Your task to perform on an android device: remove spam from my inbox in the gmail app Image 0: 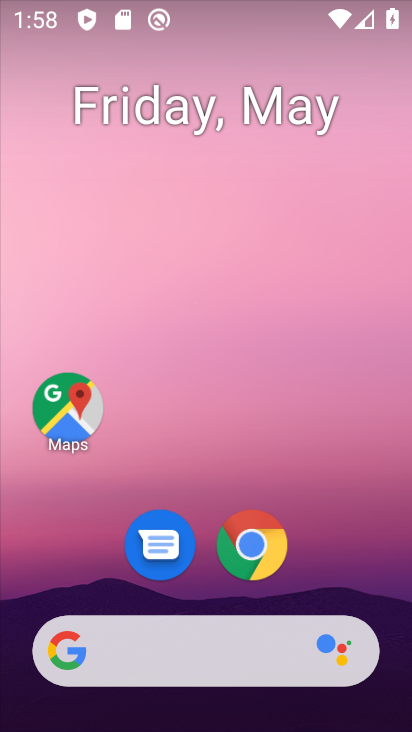
Step 0: drag from (78, 587) to (240, 161)
Your task to perform on an android device: remove spam from my inbox in the gmail app Image 1: 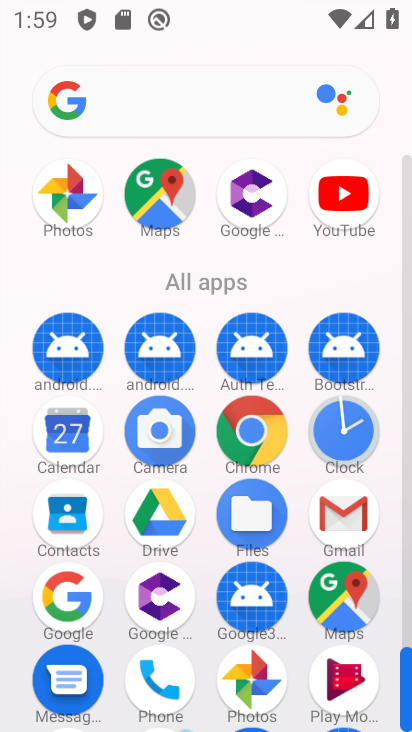
Step 1: click (363, 511)
Your task to perform on an android device: remove spam from my inbox in the gmail app Image 2: 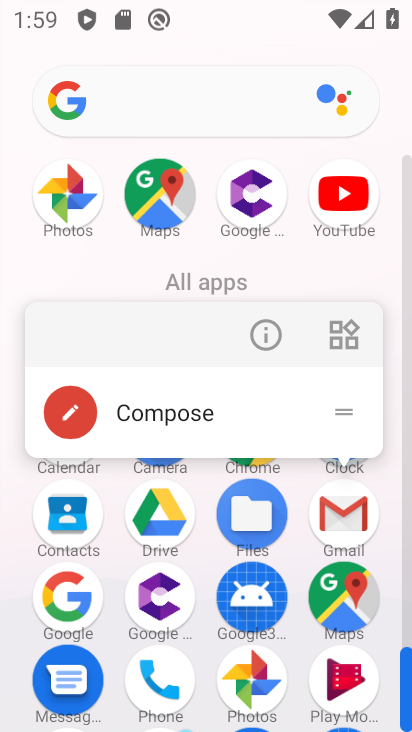
Step 2: click (335, 515)
Your task to perform on an android device: remove spam from my inbox in the gmail app Image 3: 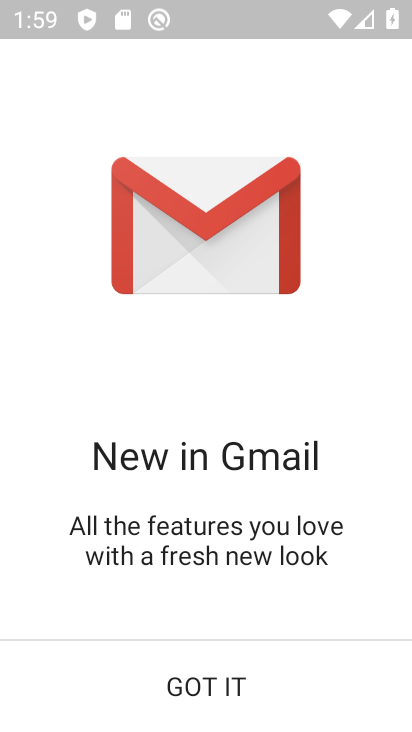
Step 3: click (194, 674)
Your task to perform on an android device: remove spam from my inbox in the gmail app Image 4: 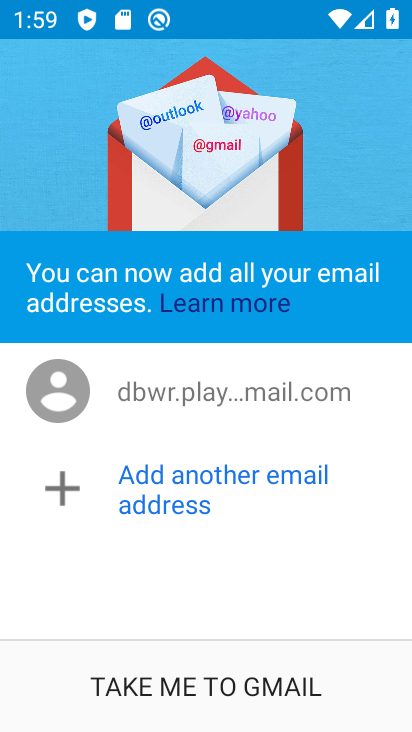
Step 4: click (204, 681)
Your task to perform on an android device: remove spam from my inbox in the gmail app Image 5: 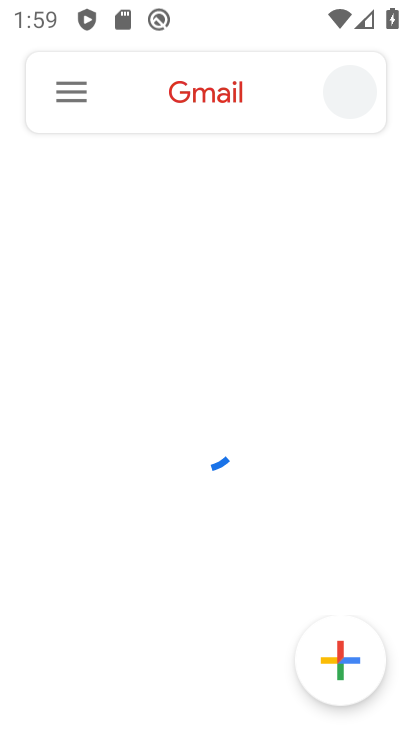
Step 5: click (63, 97)
Your task to perform on an android device: remove spam from my inbox in the gmail app Image 6: 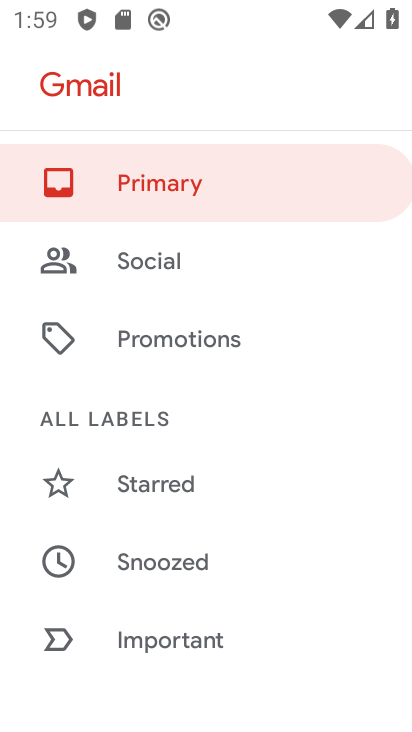
Step 6: drag from (83, 558) to (253, 153)
Your task to perform on an android device: remove spam from my inbox in the gmail app Image 7: 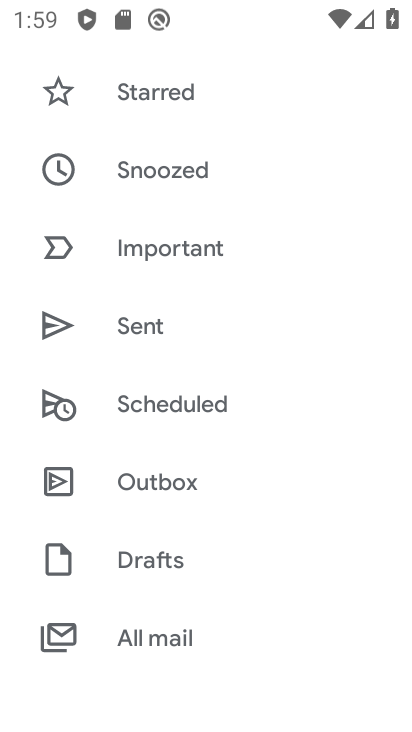
Step 7: drag from (145, 574) to (236, 225)
Your task to perform on an android device: remove spam from my inbox in the gmail app Image 8: 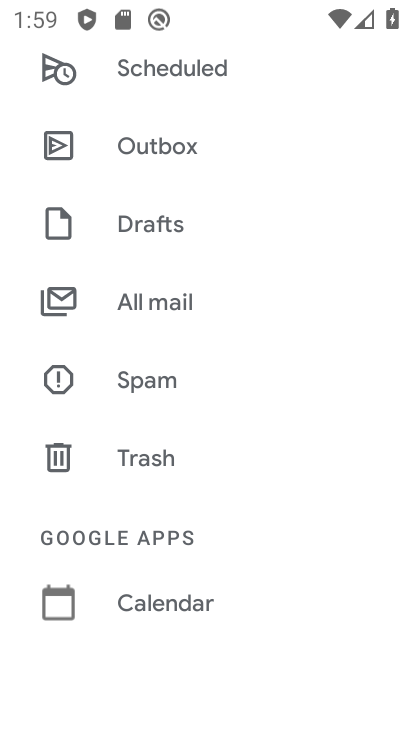
Step 8: click (181, 368)
Your task to perform on an android device: remove spam from my inbox in the gmail app Image 9: 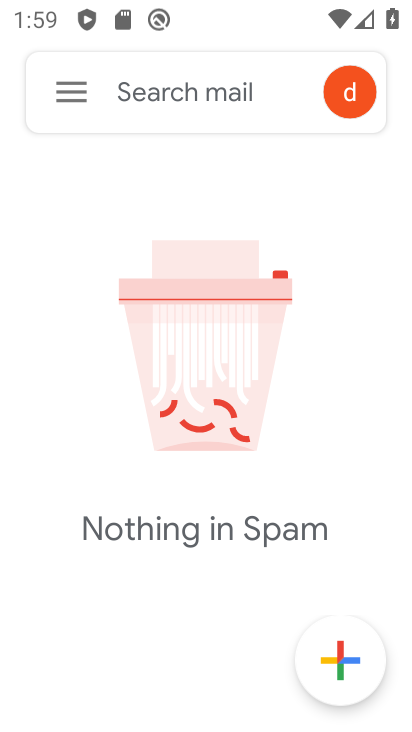
Step 9: task complete